Your task to perform on an android device: Search for macbook on walmart.com, select the first entry, add it to the cart, then select checkout. Image 0: 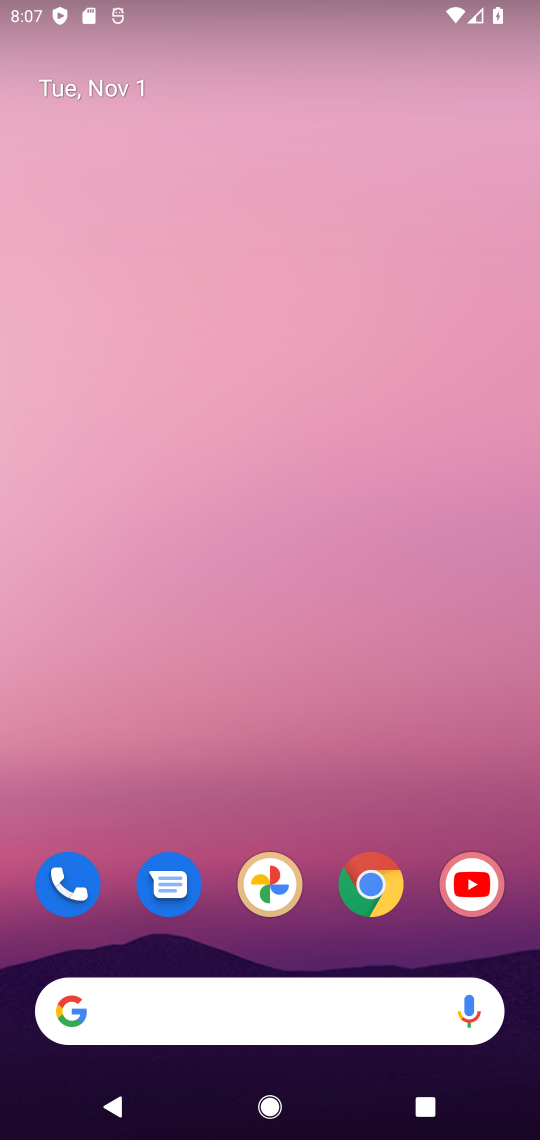
Step 0: click (373, 886)
Your task to perform on an android device: Search for macbook on walmart.com, select the first entry, add it to the cart, then select checkout. Image 1: 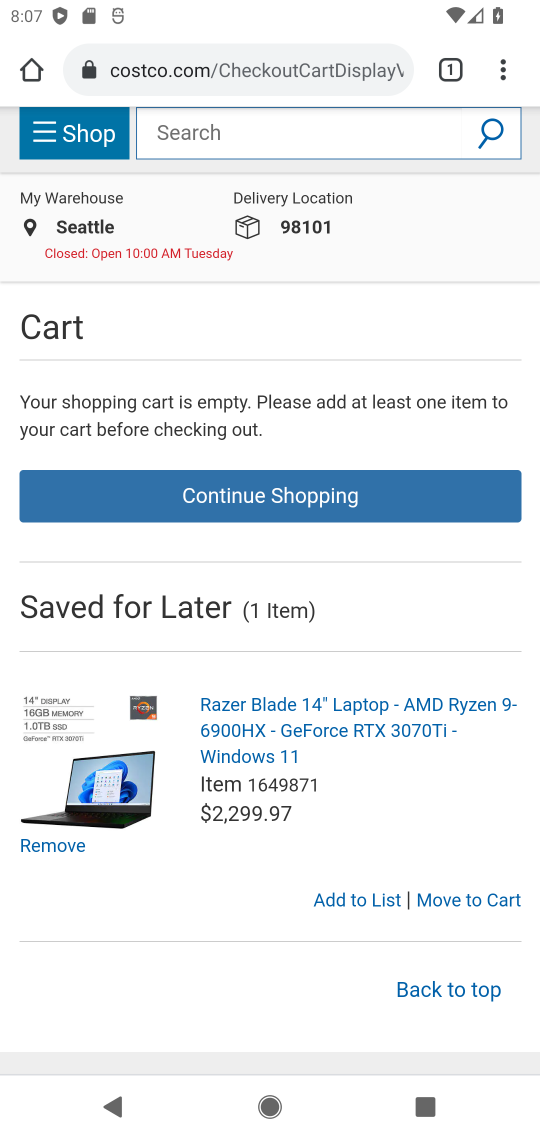
Step 1: click (320, 74)
Your task to perform on an android device: Search for macbook on walmart.com, select the first entry, add it to the cart, then select checkout. Image 2: 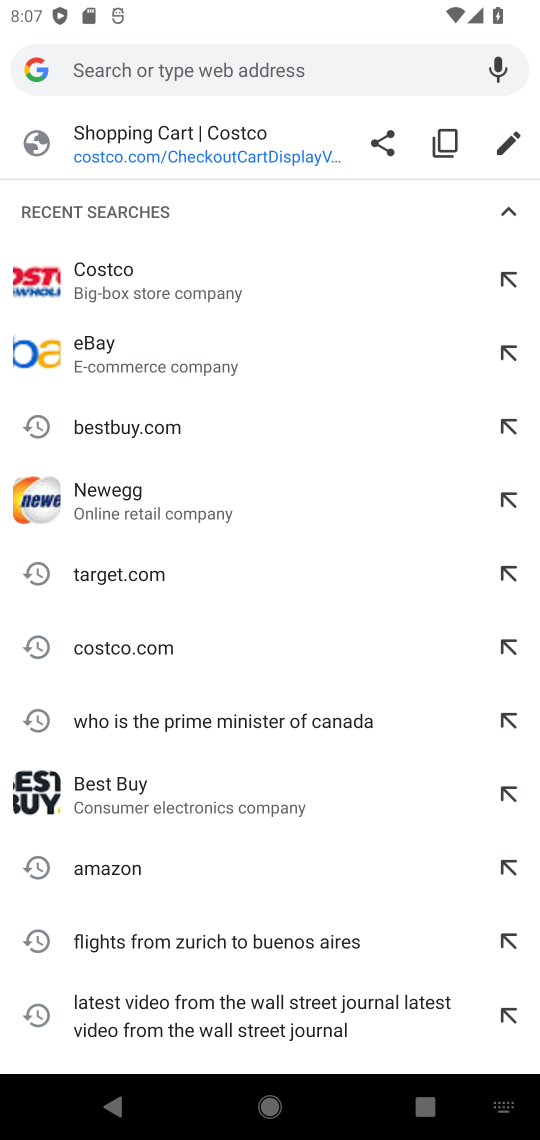
Step 2: type "walmart.com"
Your task to perform on an android device: Search for macbook on walmart.com, select the first entry, add it to the cart, then select checkout. Image 3: 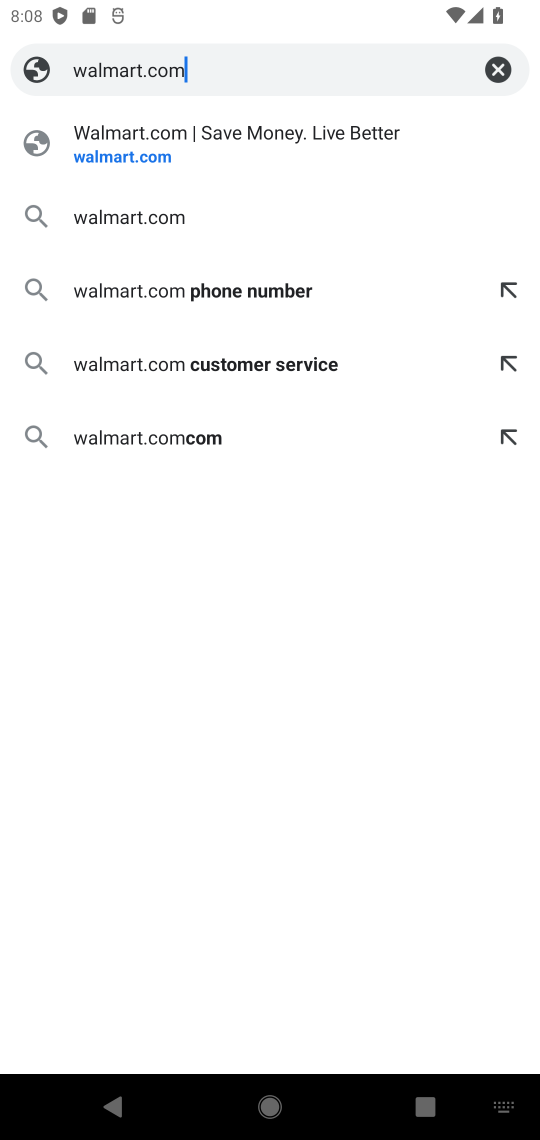
Step 3: click (175, 209)
Your task to perform on an android device: Search for macbook on walmart.com, select the first entry, add it to the cart, then select checkout. Image 4: 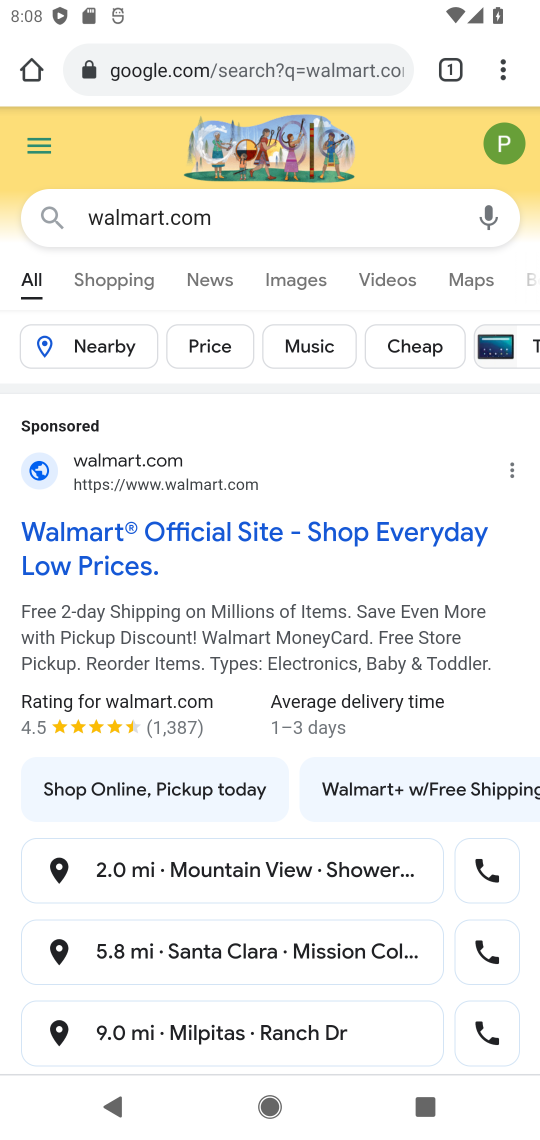
Step 4: drag from (214, 647) to (317, 387)
Your task to perform on an android device: Search for macbook on walmart.com, select the first entry, add it to the cart, then select checkout. Image 5: 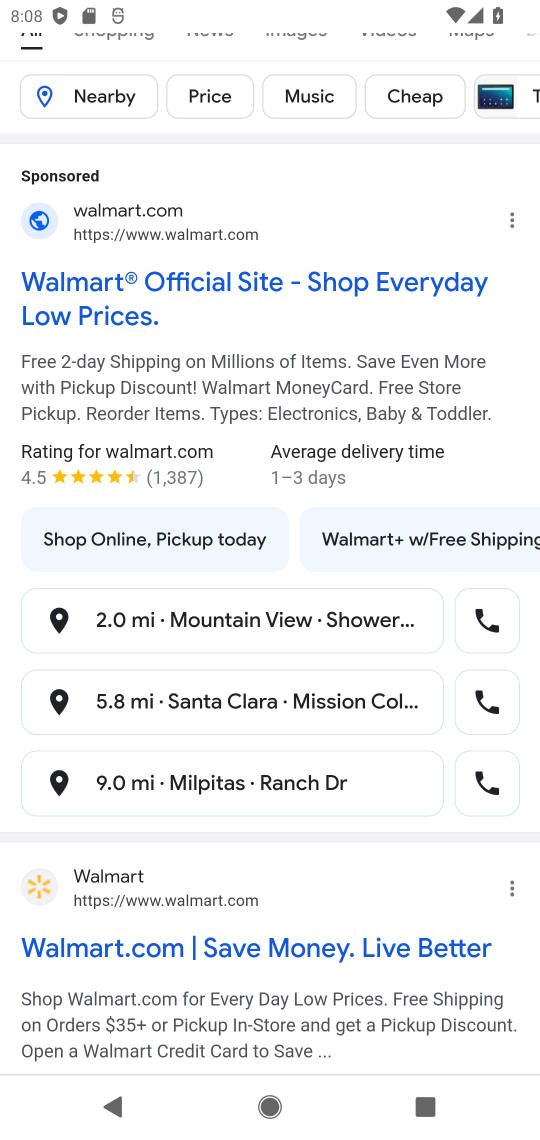
Step 5: drag from (271, 851) to (353, 513)
Your task to perform on an android device: Search for macbook on walmart.com, select the first entry, add it to the cart, then select checkout. Image 6: 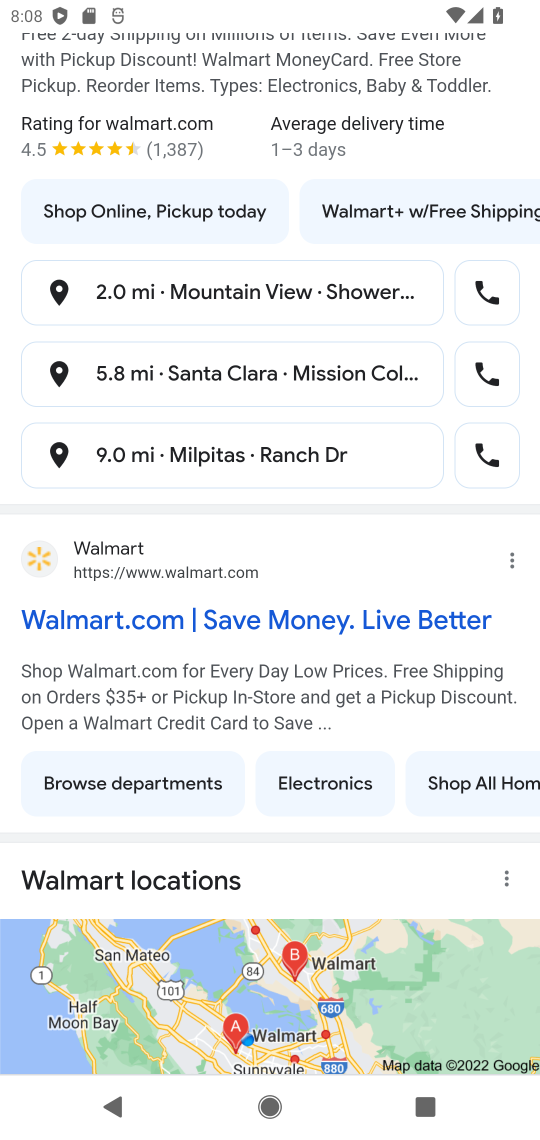
Step 6: click (251, 625)
Your task to perform on an android device: Search for macbook on walmart.com, select the first entry, add it to the cart, then select checkout. Image 7: 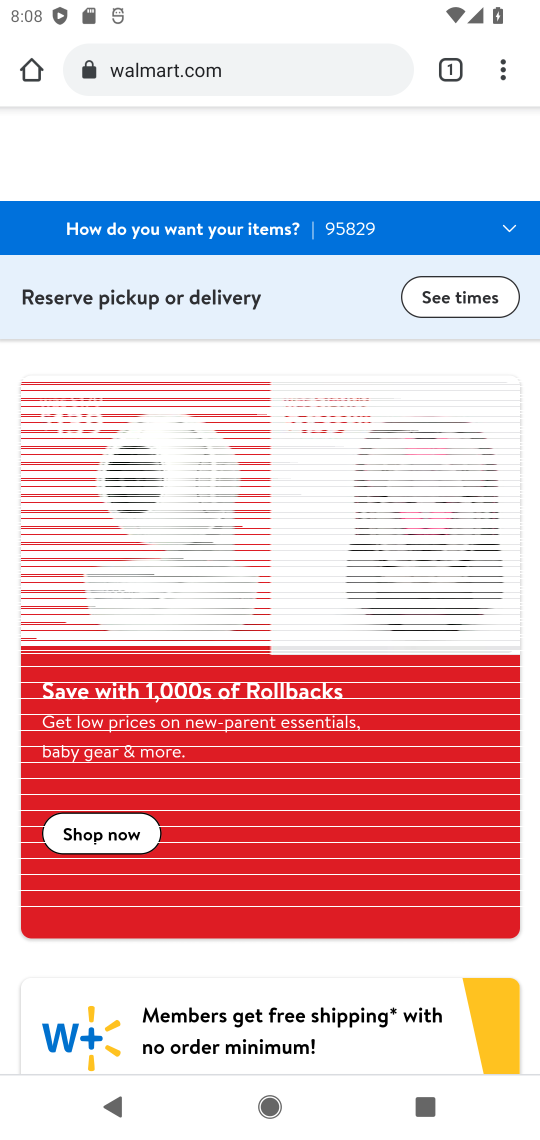
Step 7: click (301, 162)
Your task to perform on an android device: Search for macbook on walmart.com, select the first entry, add it to the cart, then select checkout. Image 8: 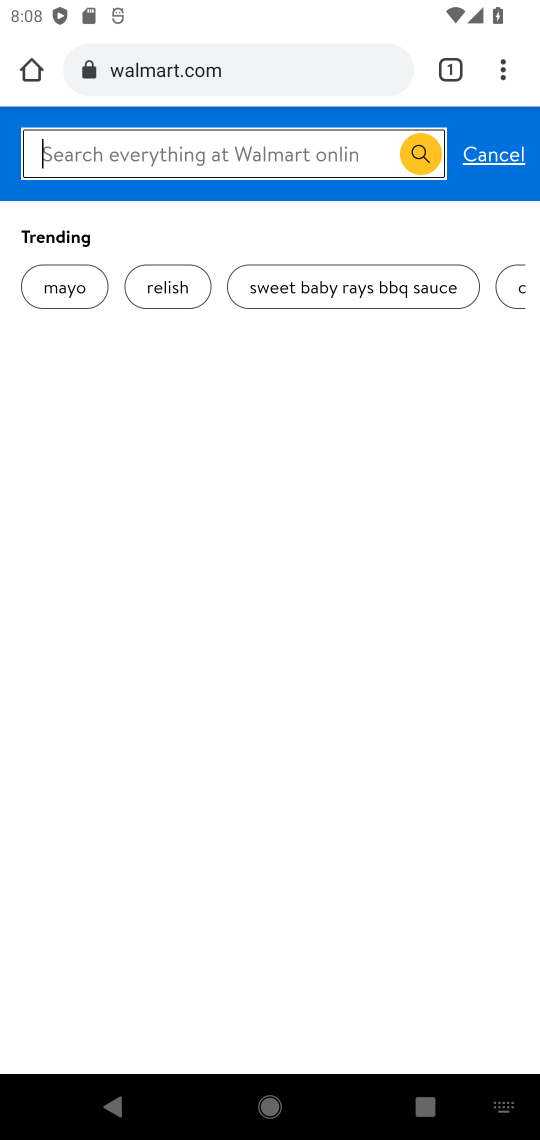
Step 8: type "macbook"
Your task to perform on an android device: Search for macbook on walmart.com, select the first entry, add it to the cart, then select checkout. Image 9: 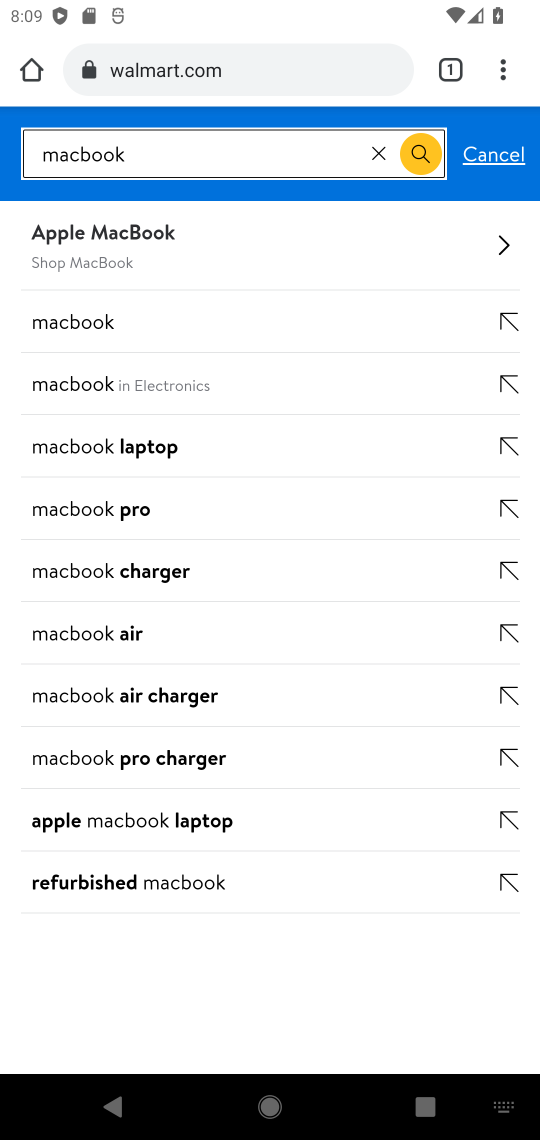
Step 9: click (427, 151)
Your task to perform on an android device: Search for macbook on walmart.com, select the first entry, add it to the cart, then select checkout. Image 10: 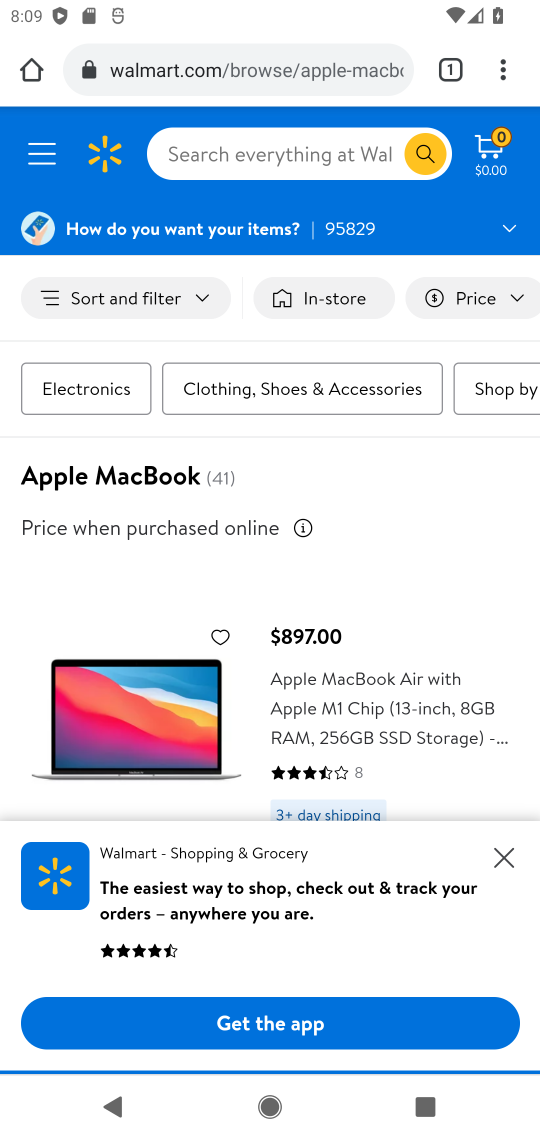
Step 10: drag from (364, 651) to (391, 460)
Your task to perform on an android device: Search for macbook on walmart.com, select the first entry, add it to the cart, then select checkout. Image 11: 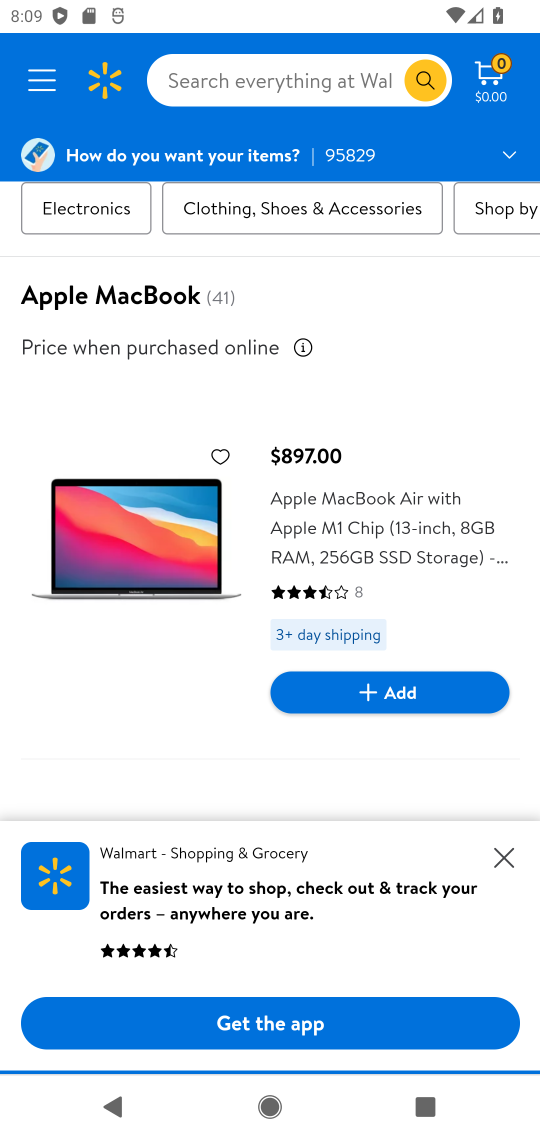
Step 11: click (394, 686)
Your task to perform on an android device: Search for macbook on walmart.com, select the first entry, add it to the cart, then select checkout. Image 12: 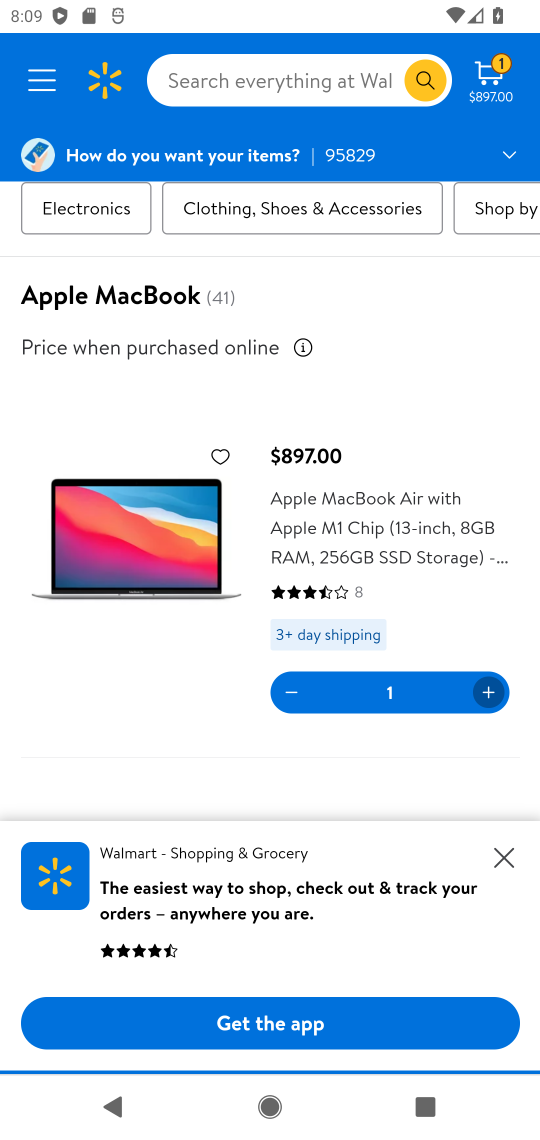
Step 12: click (493, 75)
Your task to perform on an android device: Search for macbook on walmart.com, select the first entry, add it to the cart, then select checkout. Image 13: 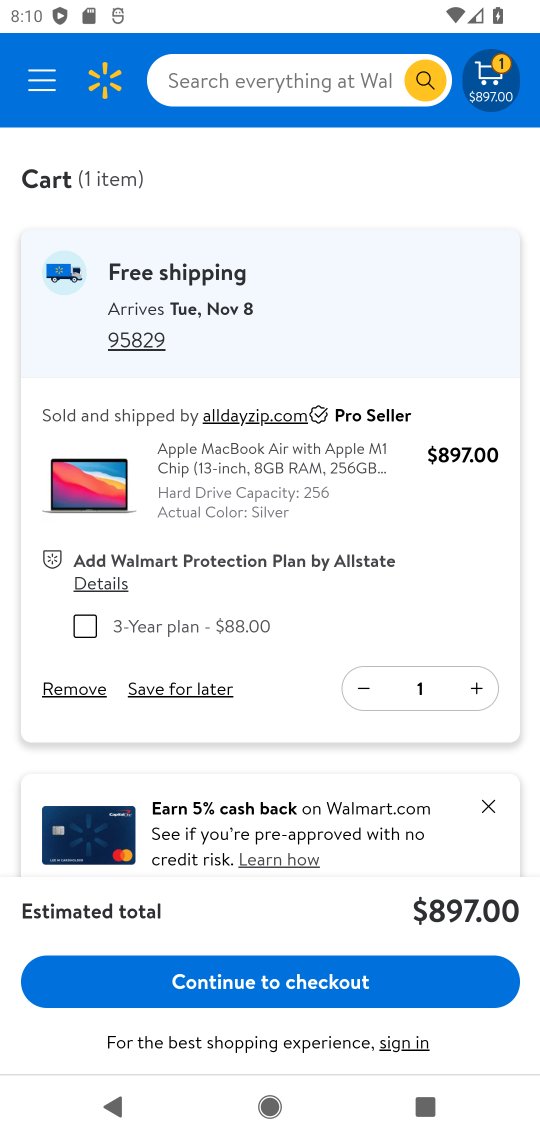
Step 13: click (271, 978)
Your task to perform on an android device: Search for macbook on walmart.com, select the first entry, add it to the cart, then select checkout. Image 14: 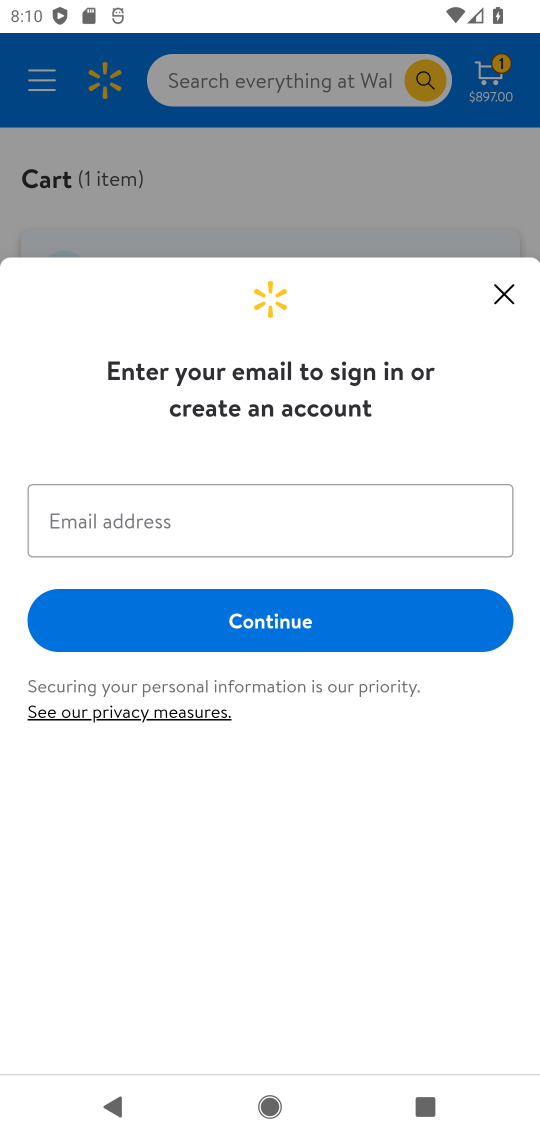
Step 14: task complete